Your task to perform on an android device: Open Google Chrome Image 0: 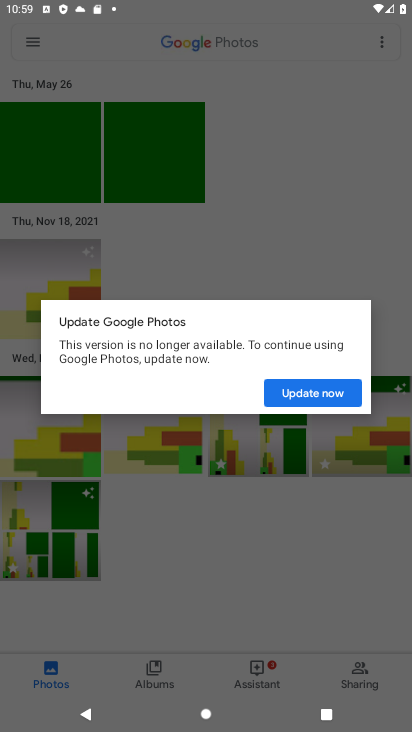
Step 0: press home button
Your task to perform on an android device: Open Google Chrome Image 1: 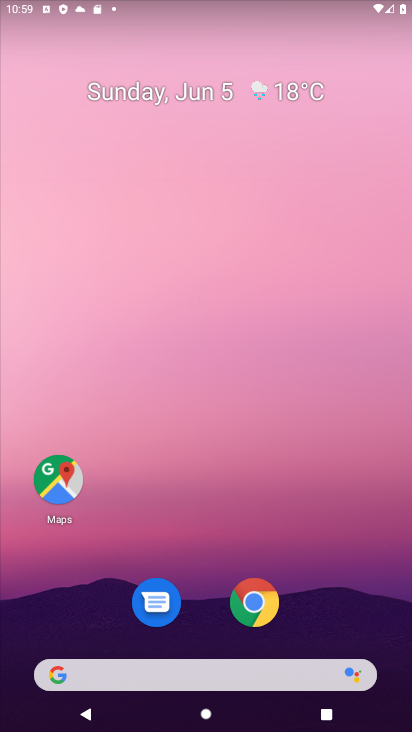
Step 1: click (271, 605)
Your task to perform on an android device: Open Google Chrome Image 2: 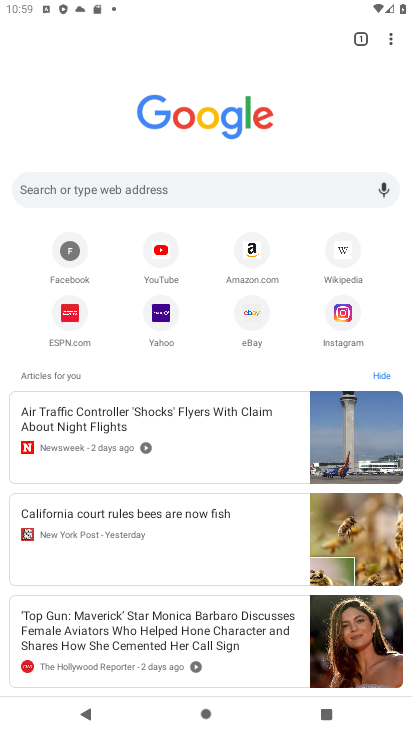
Step 2: task complete